Your task to perform on an android device: Search for Italian restaurants on Maps Image 0: 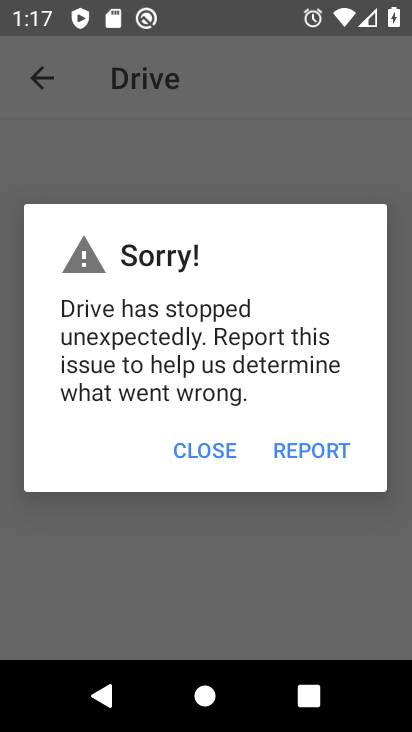
Step 0: press home button
Your task to perform on an android device: Search for Italian restaurants on Maps Image 1: 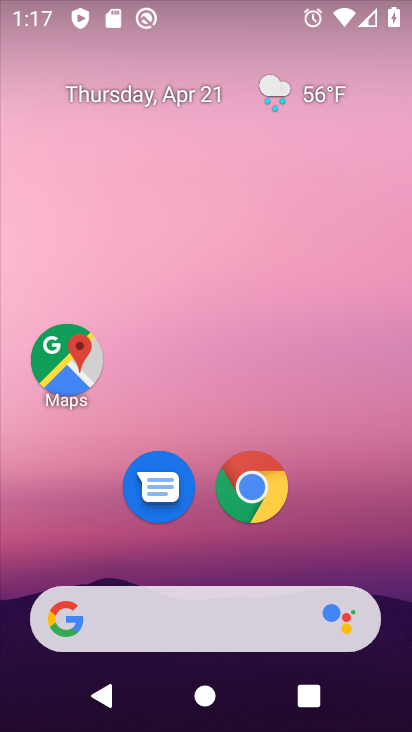
Step 1: click (52, 358)
Your task to perform on an android device: Search for Italian restaurants on Maps Image 2: 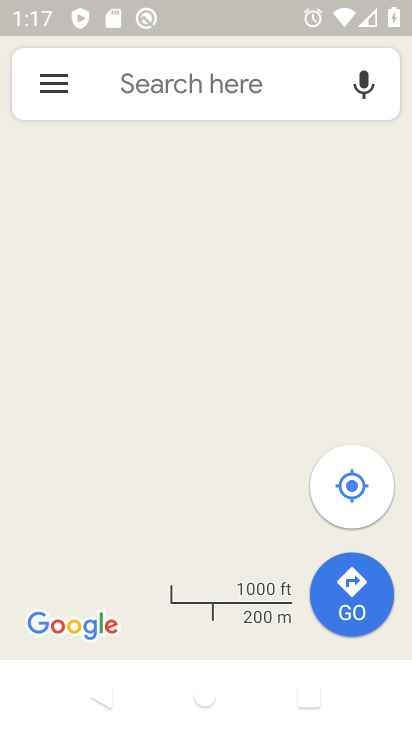
Step 2: click (191, 84)
Your task to perform on an android device: Search for Italian restaurants on Maps Image 3: 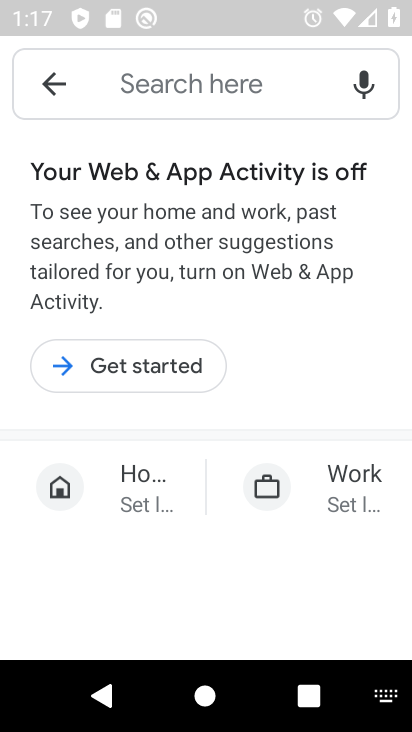
Step 3: drag from (274, 506) to (267, 219)
Your task to perform on an android device: Search for Italian restaurants on Maps Image 4: 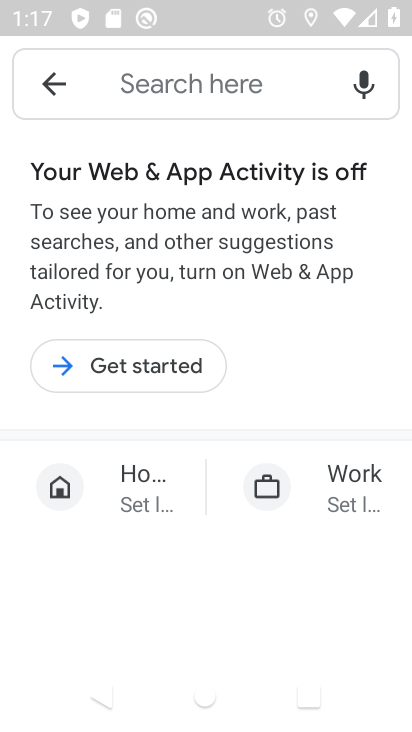
Step 4: click (223, 70)
Your task to perform on an android device: Search for Italian restaurants on Maps Image 5: 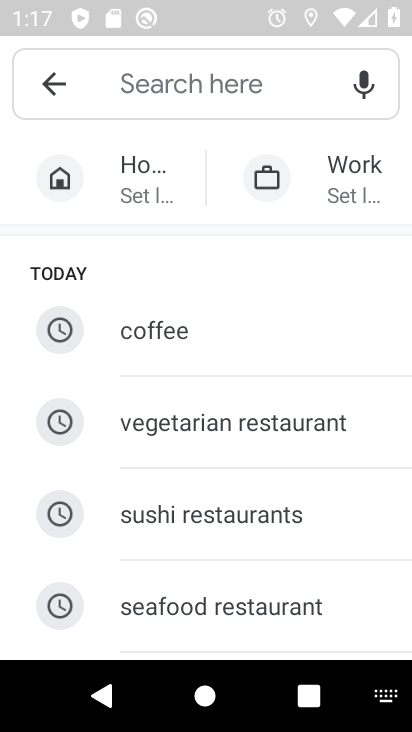
Step 5: drag from (307, 533) to (285, 223)
Your task to perform on an android device: Search for Italian restaurants on Maps Image 6: 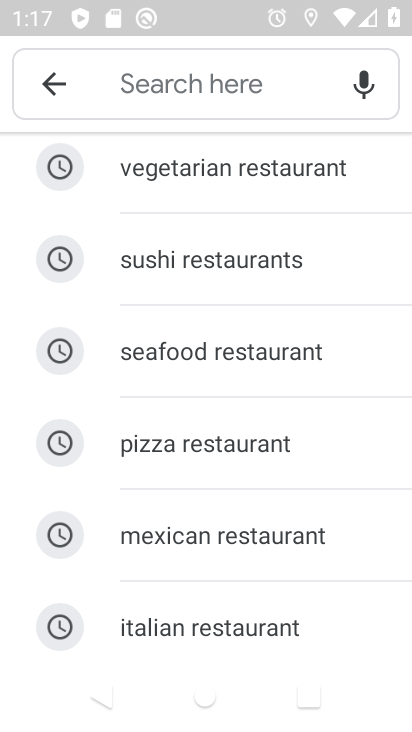
Step 6: click (210, 631)
Your task to perform on an android device: Search for Italian restaurants on Maps Image 7: 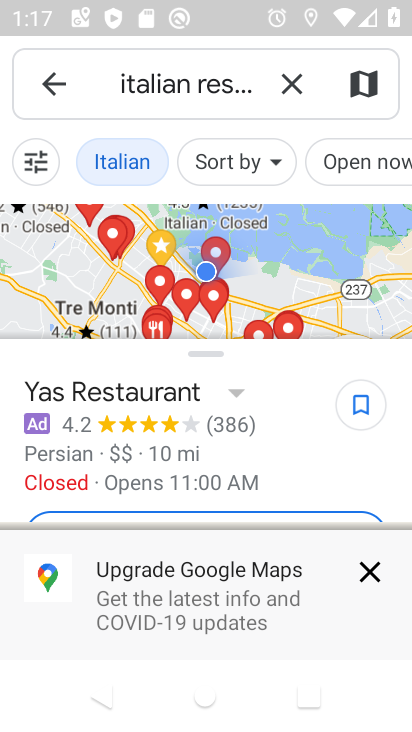
Step 7: task complete